Your task to perform on an android device: all mails in gmail Image 0: 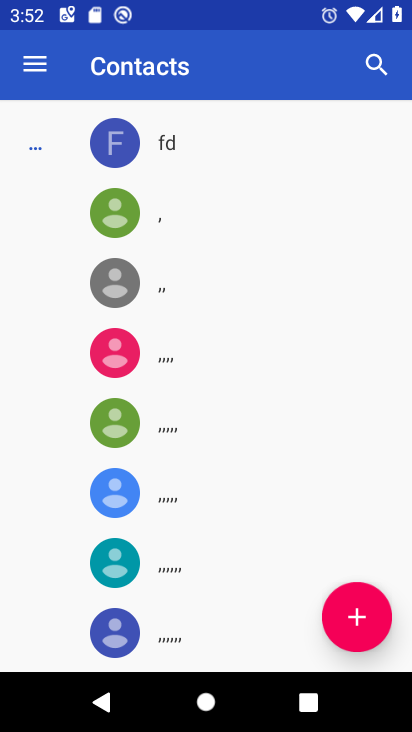
Step 0: press home button
Your task to perform on an android device: all mails in gmail Image 1: 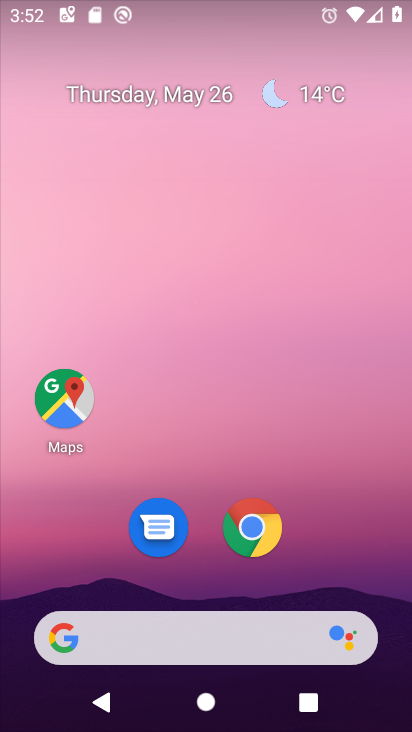
Step 1: drag from (371, 573) to (296, 222)
Your task to perform on an android device: all mails in gmail Image 2: 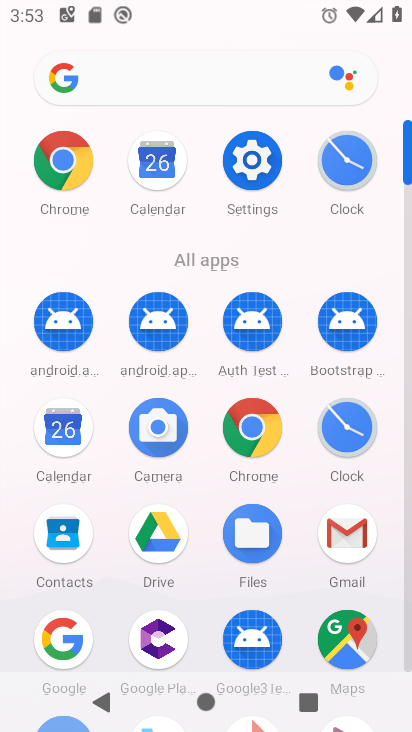
Step 2: click (372, 536)
Your task to perform on an android device: all mails in gmail Image 3: 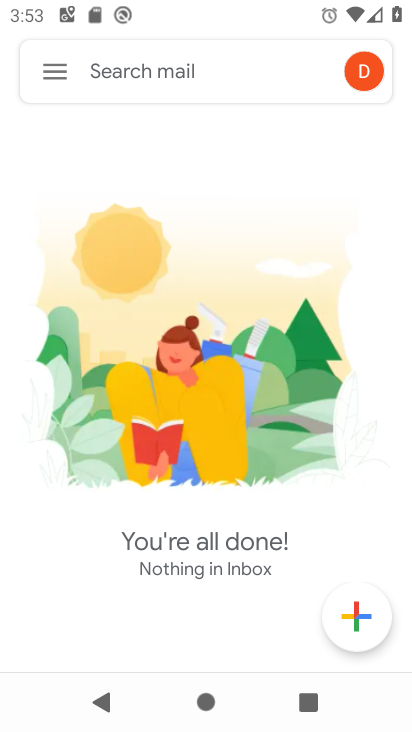
Step 3: click (44, 76)
Your task to perform on an android device: all mails in gmail Image 4: 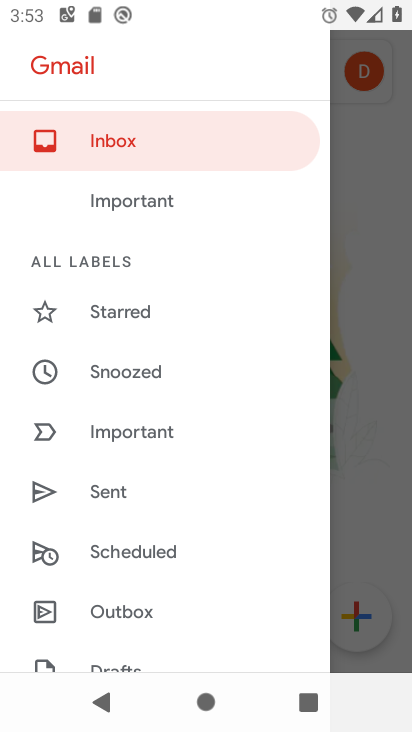
Step 4: drag from (171, 639) to (171, 21)
Your task to perform on an android device: all mails in gmail Image 5: 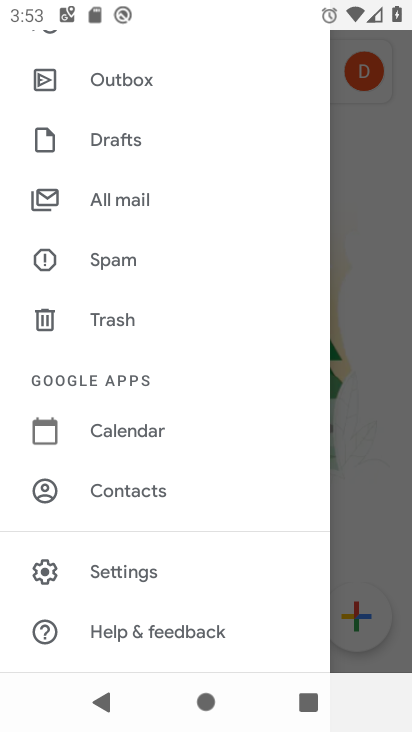
Step 5: click (134, 202)
Your task to perform on an android device: all mails in gmail Image 6: 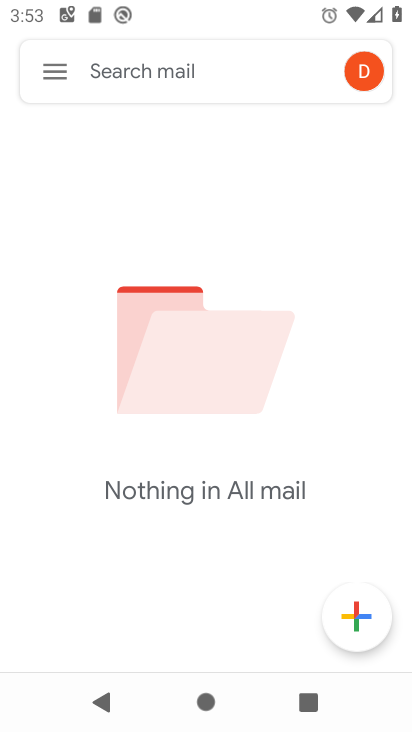
Step 6: task complete